Your task to perform on an android device: create a new album in the google photos Image 0: 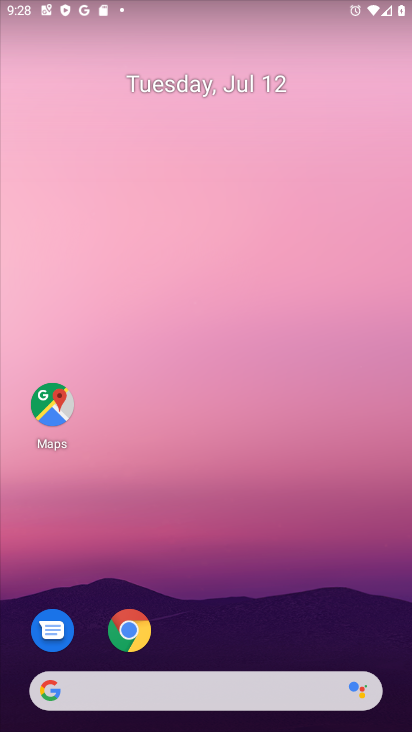
Step 0: drag from (213, 642) to (233, 144)
Your task to perform on an android device: create a new album in the google photos Image 1: 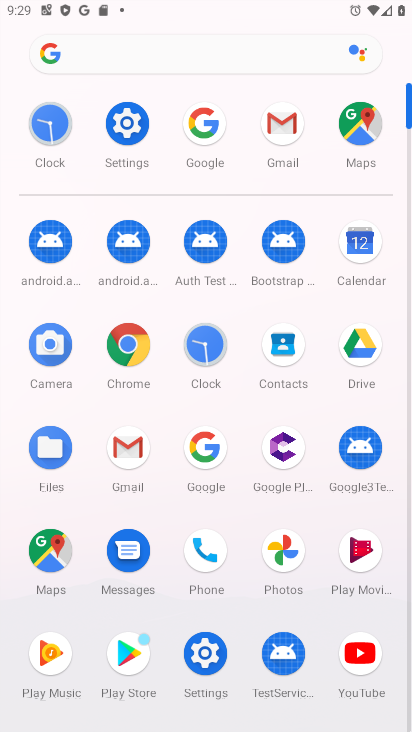
Step 1: click (288, 548)
Your task to perform on an android device: create a new album in the google photos Image 2: 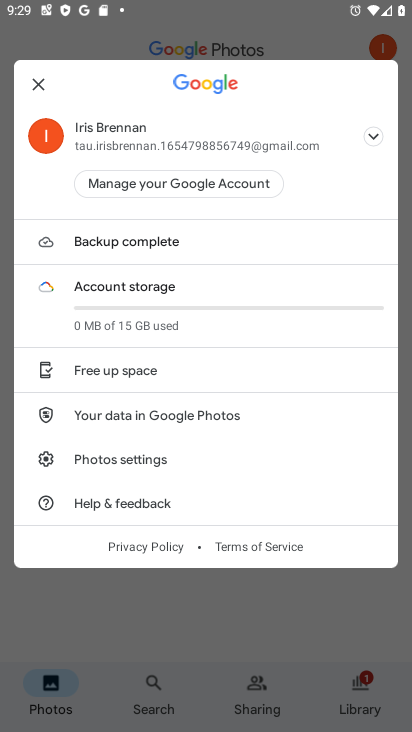
Step 2: drag from (141, 457) to (182, 575)
Your task to perform on an android device: create a new album in the google photos Image 3: 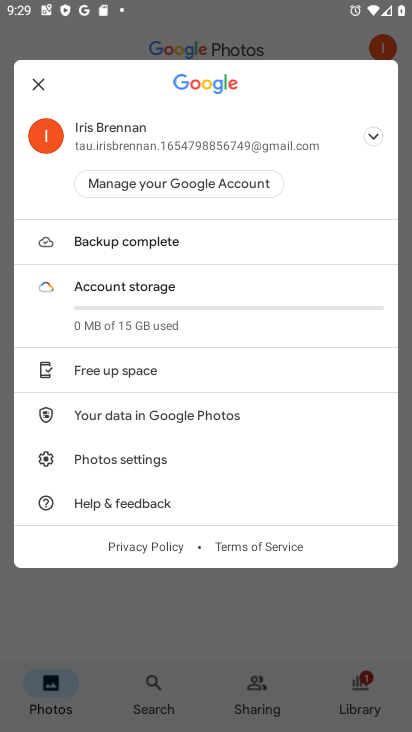
Step 3: press back button
Your task to perform on an android device: create a new album in the google photos Image 4: 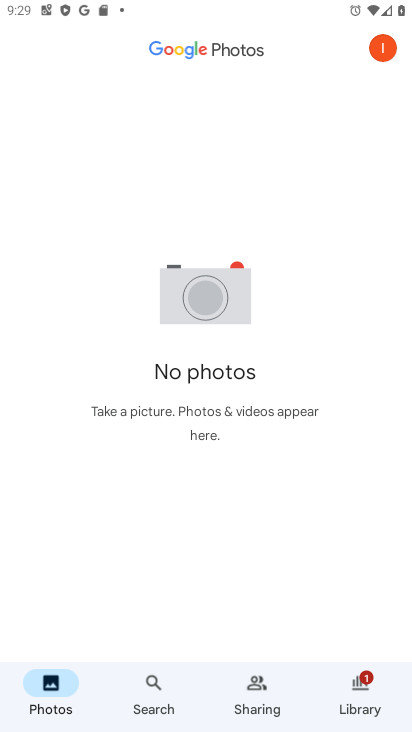
Step 4: click (369, 690)
Your task to perform on an android device: create a new album in the google photos Image 5: 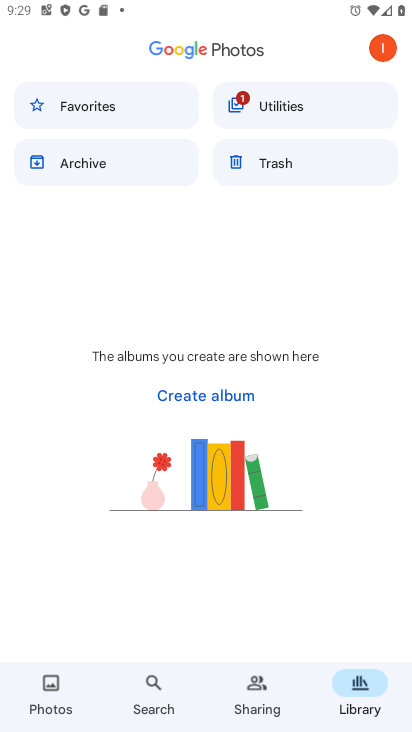
Step 5: click (202, 392)
Your task to perform on an android device: create a new album in the google photos Image 6: 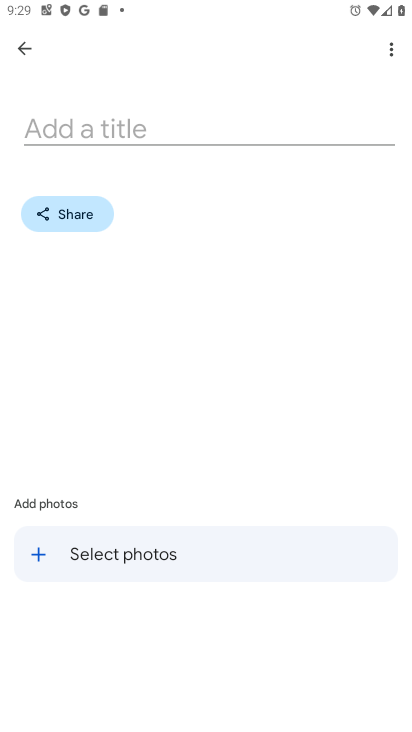
Step 6: click (122, 123)
Your task to perform on an android device: create a new album in the google photos Image 7: 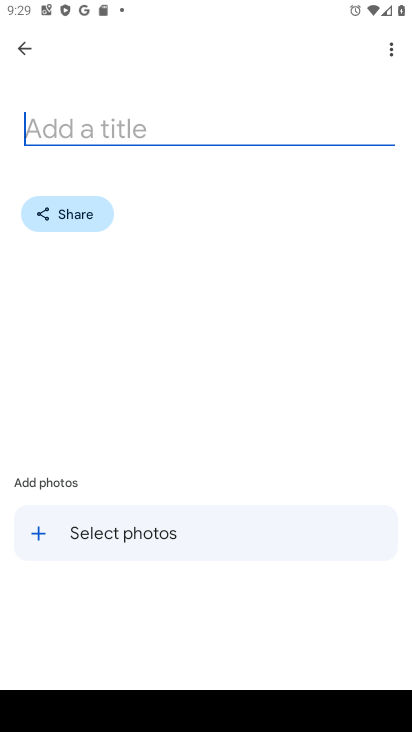
Step 7: type "jhfhcgc"
Your task to perform on an android device: create a new album in the google photos Image 8: 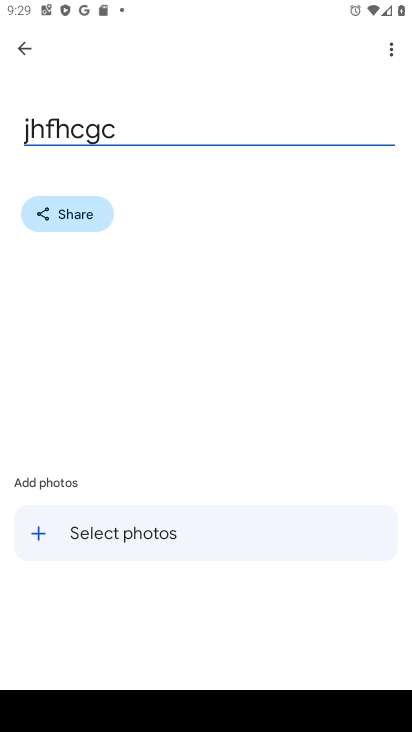
Step 8: task complete